Your task to perform on an android device: turn on location history Image 0: 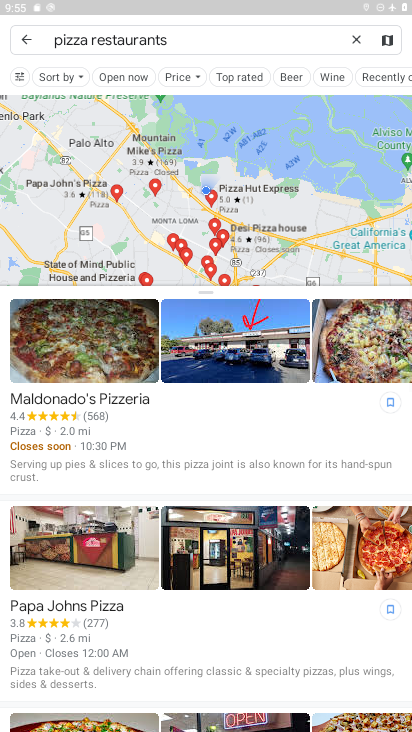
Step 0: press home button
Your task to perform on an android device: turn on location history Image 1: 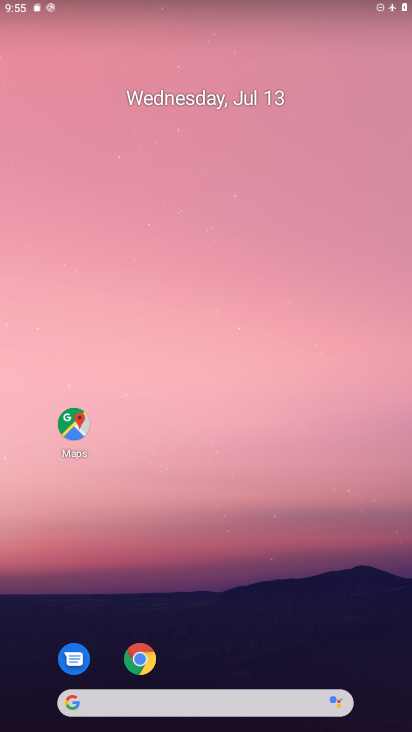
Step 1: drag from (184, 708) to (158, 199)
Your task to perform on an android device: turn on location history Image 2: 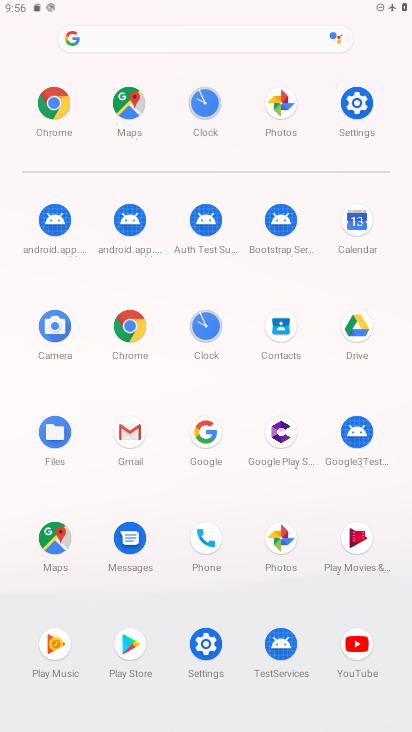
Step 2: click (200, 643)
Your task to perform on an android device: turn on location history Image 3: 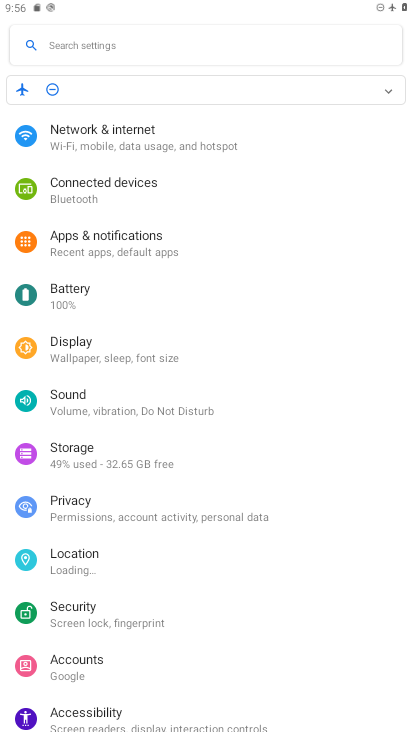
Step 3: click (101, 553)
Your task to perform on an android device: turn on location history Image 4: 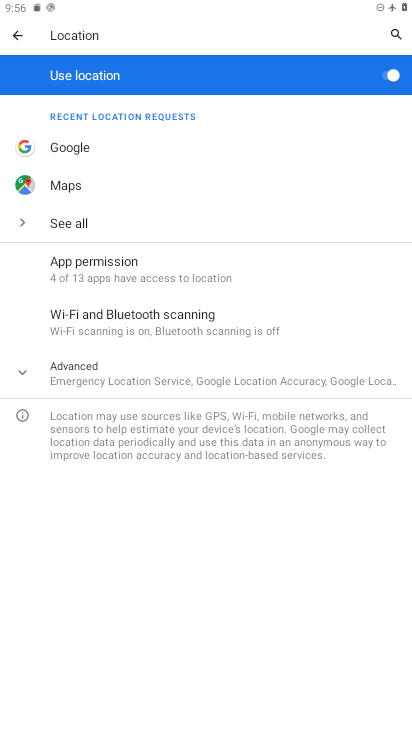
Step 4: click (143, 376)
Your task to perform on an android device: turn on location history Image 5: 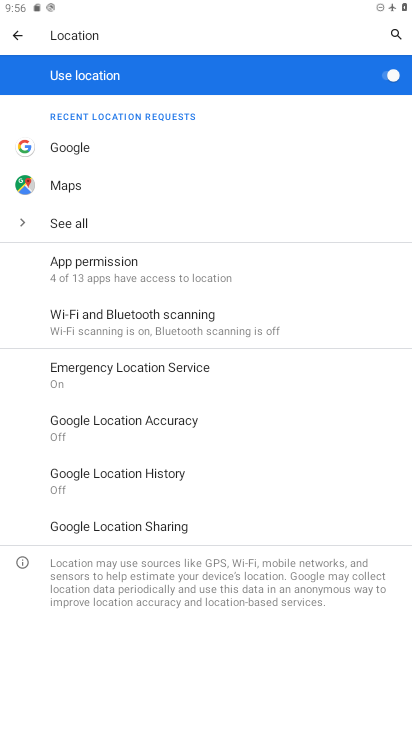
Step 5: click (173, 477)
Your task to perform on an android device: turn on location history Image 6: 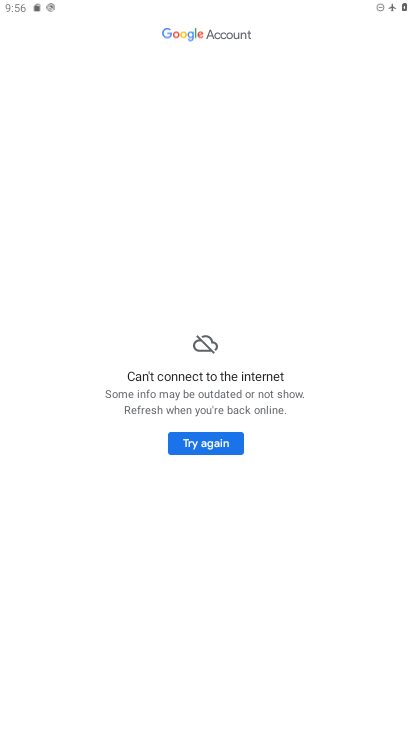
Step 6: click (212, 446)
Your task to perform on an android device: turn on location history Image 7: 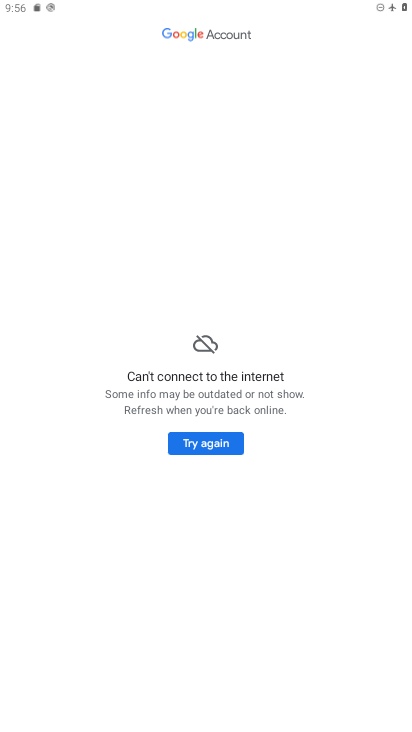
Step 7: task complete